Your task to perform on an android device: What's the weather? Image 0: 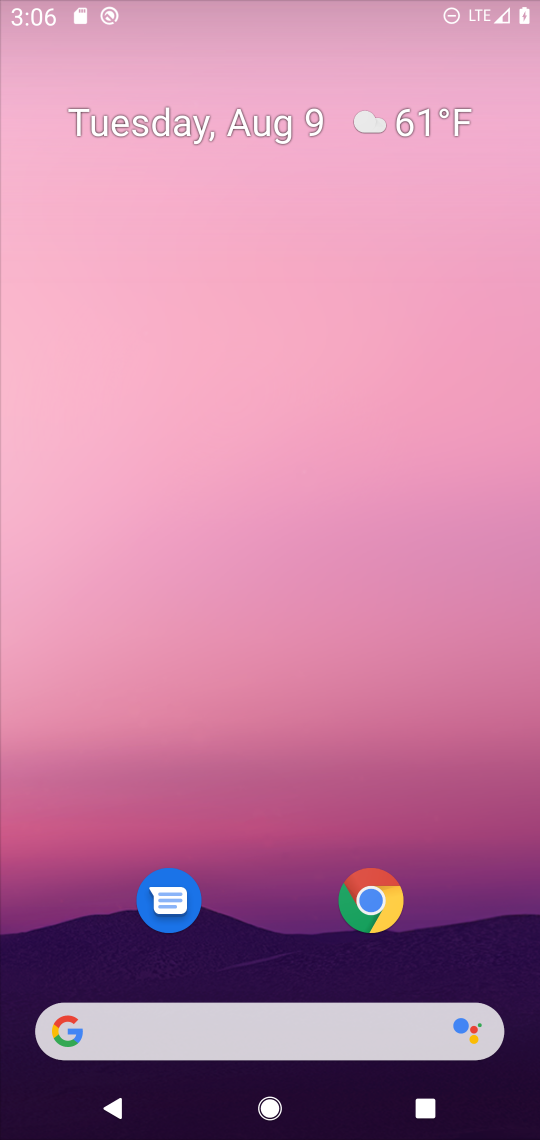
Step 0: press home button
Your task to perform on an android device: What's the weather? Image 1: 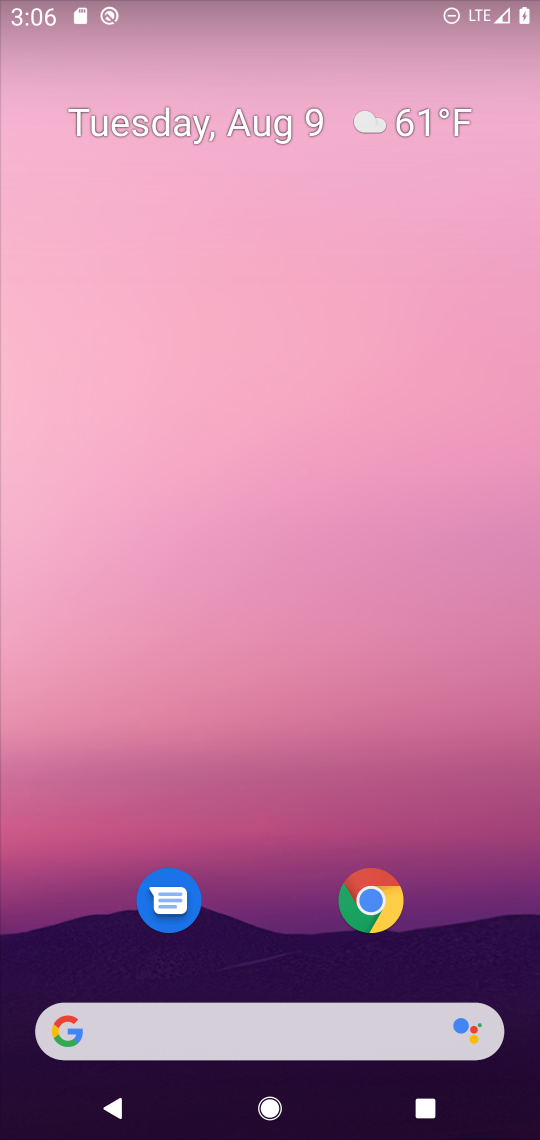
Step 1: click (225, 1042)
Your task to perform on an android device: What's the weather? Image 2: 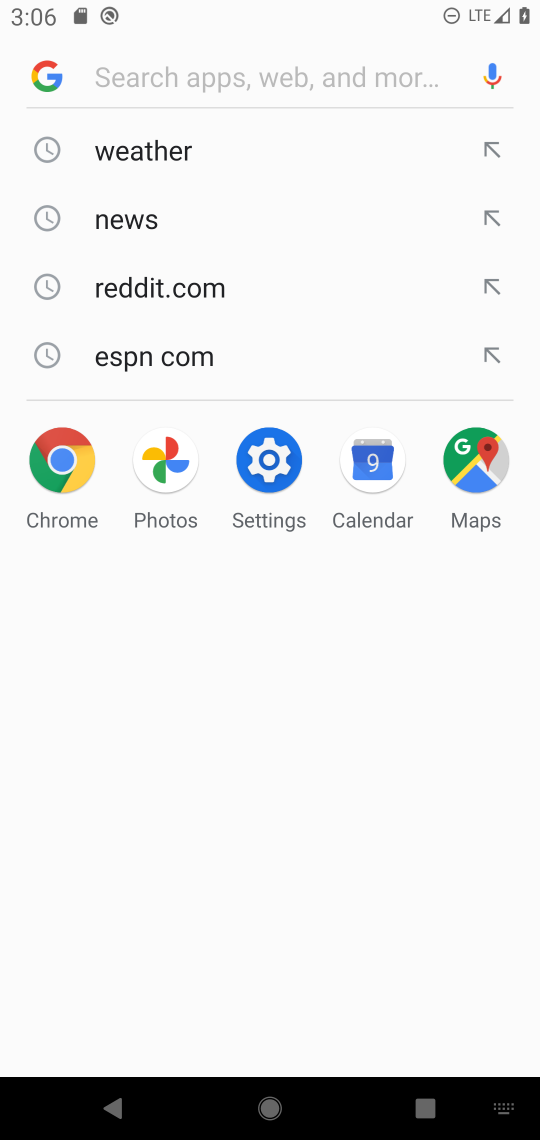
Step 2: click (137, 147)
Your task to perform on an android device: What's the weather? Image 3: 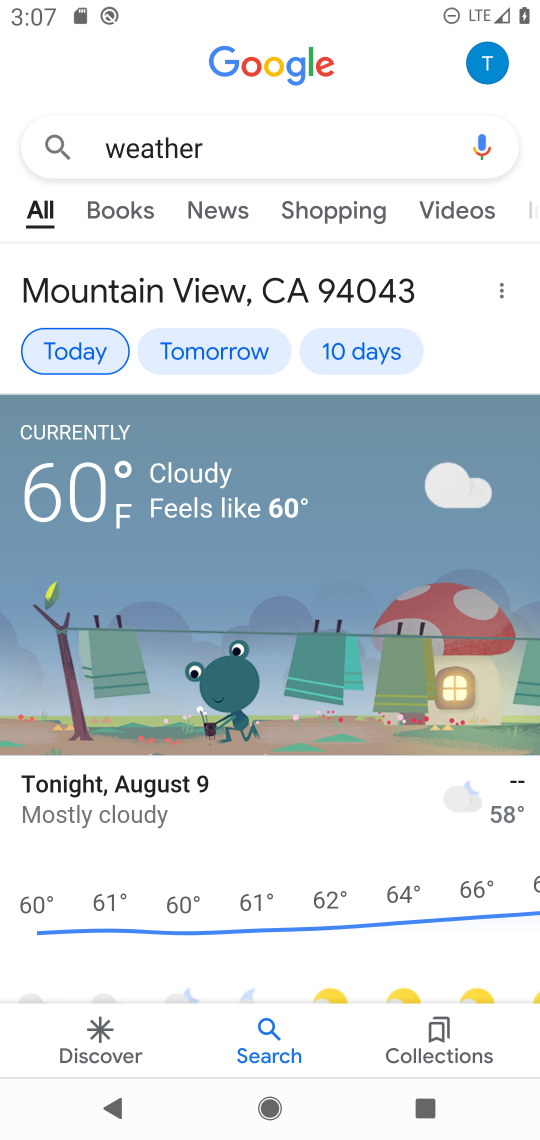
Step 3: task complete